Your task to perform on an android device: open the mobile data screen to see how much data has been used Image 0: 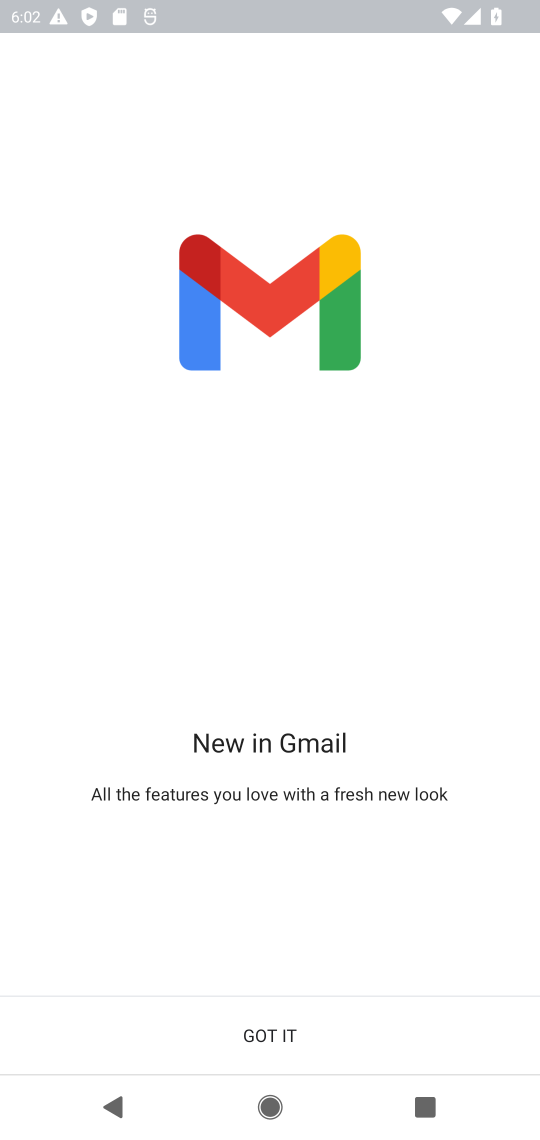
Step 0: press home button
Your task to perform on an android device: open the mobile data screen to see how much data has been used Image 1: 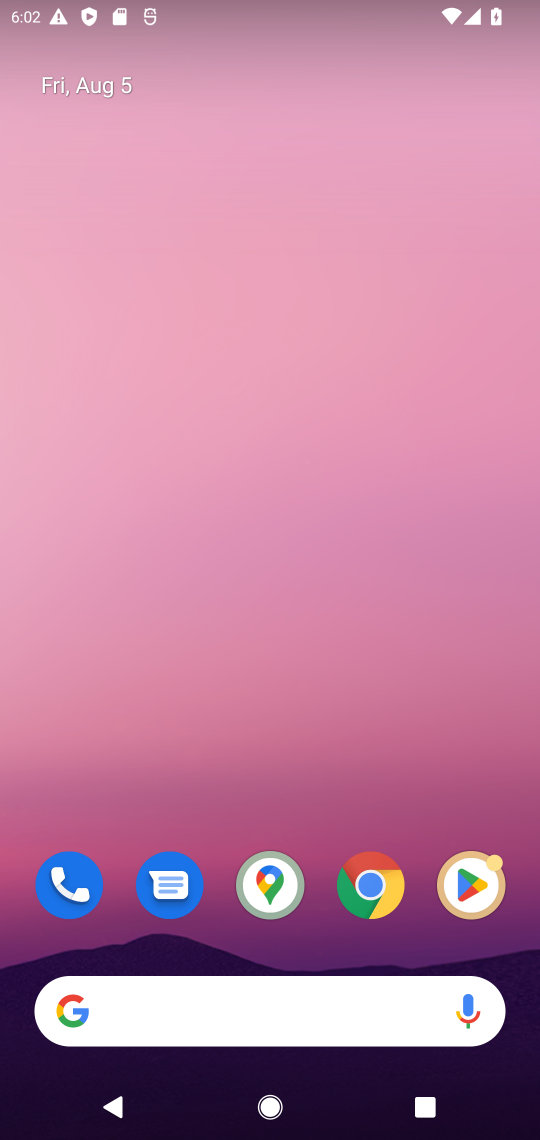
Step 1: drag from (212, 929) to (278, 200)
Your task to perform on an android device: open the mobile data screen to see how much data has been used Image 2: 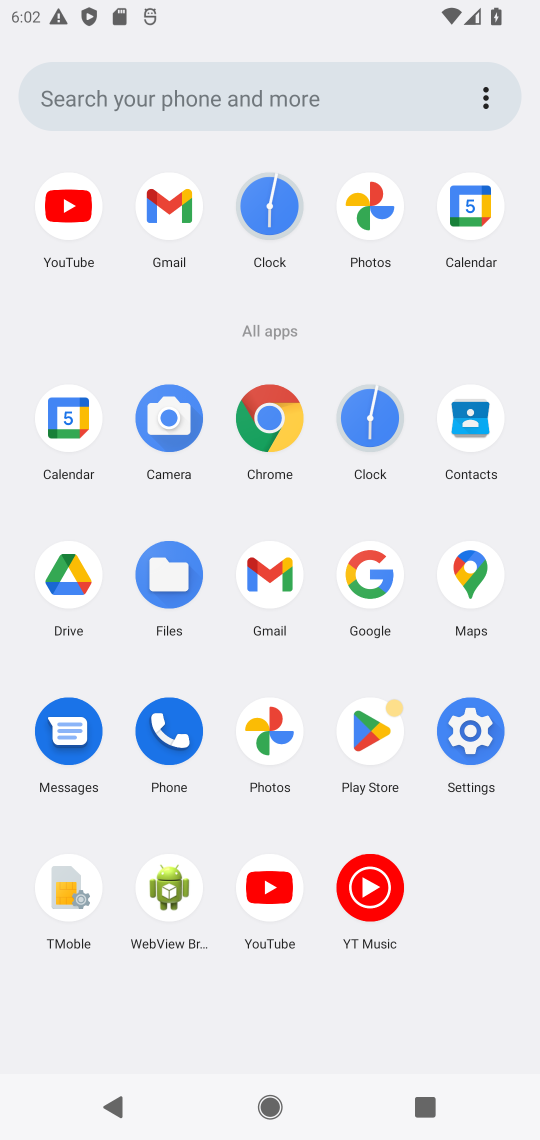
Step 2: click (469, 752)
Your task to perform on an android device: open the mobile data screen to see how much data has been used Image 3: 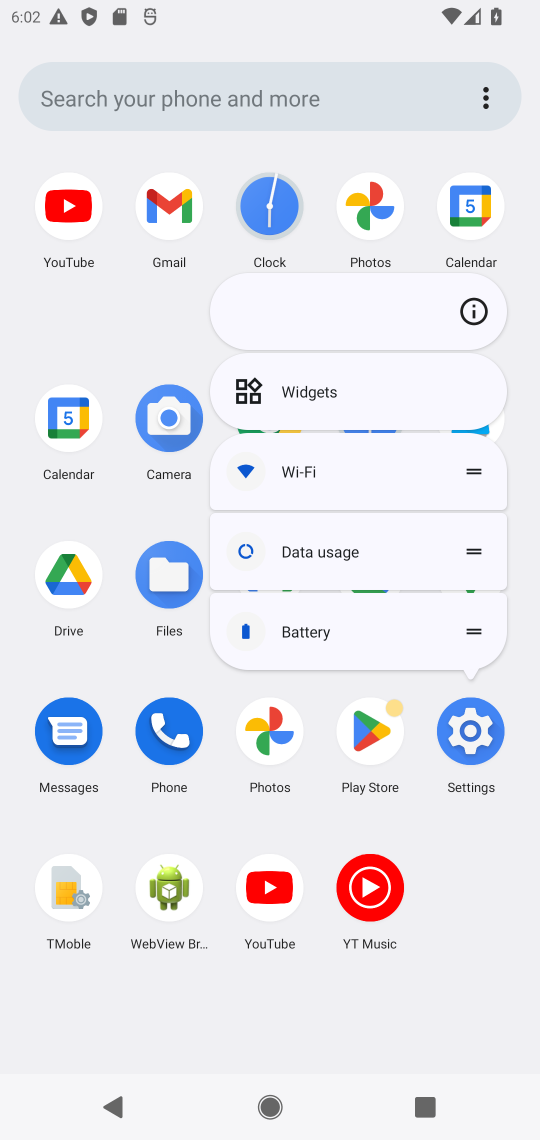
Step 3: click (469, 753)
Your task to perform on an android device: open the mobile data screen to see how much data has been used Image 4: 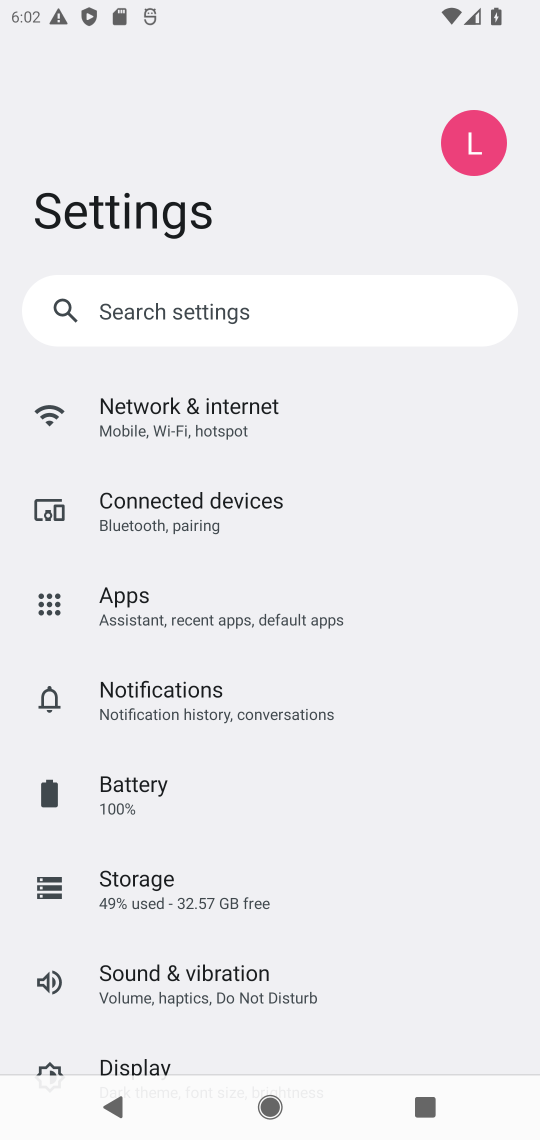
Step 4: click (202, 426)
Your task to perform on an android device: open the mobile data screen to see how much data has been used Image 5: 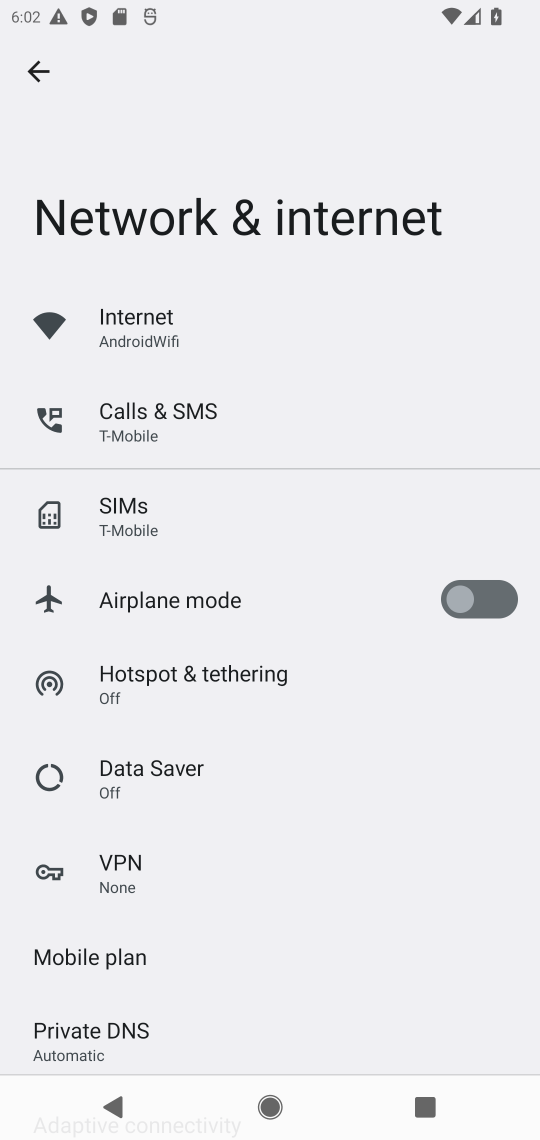
Step 5: click (163, 329)
Your task to perform on an android device: open the mobile data screen to see how much data has been used Image 6: 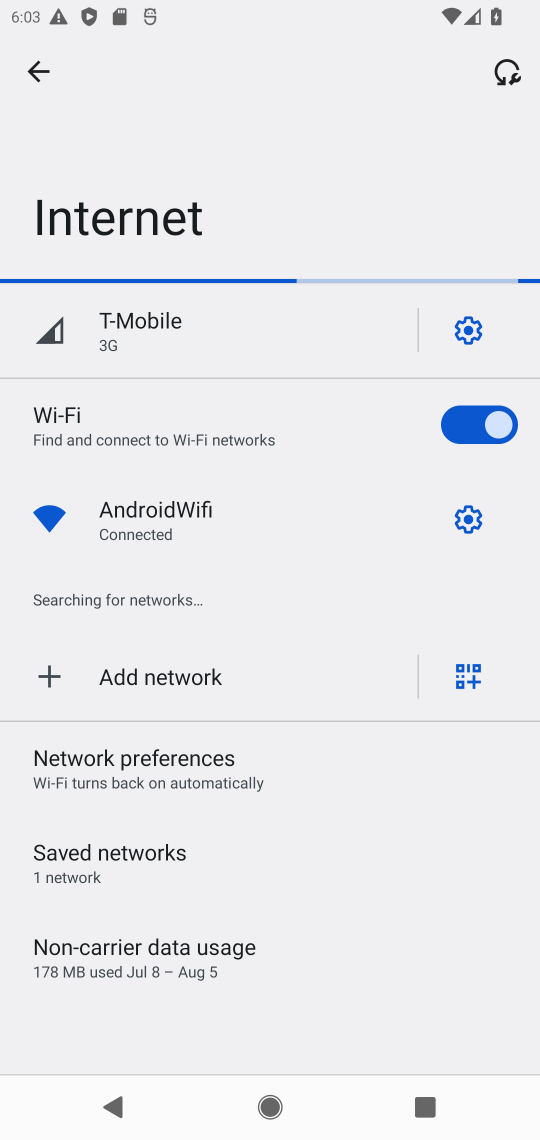
Step 6: click (135, 339)
Your task to perform on an android device: open the mobile data screen to see how much data has been used Image 7: 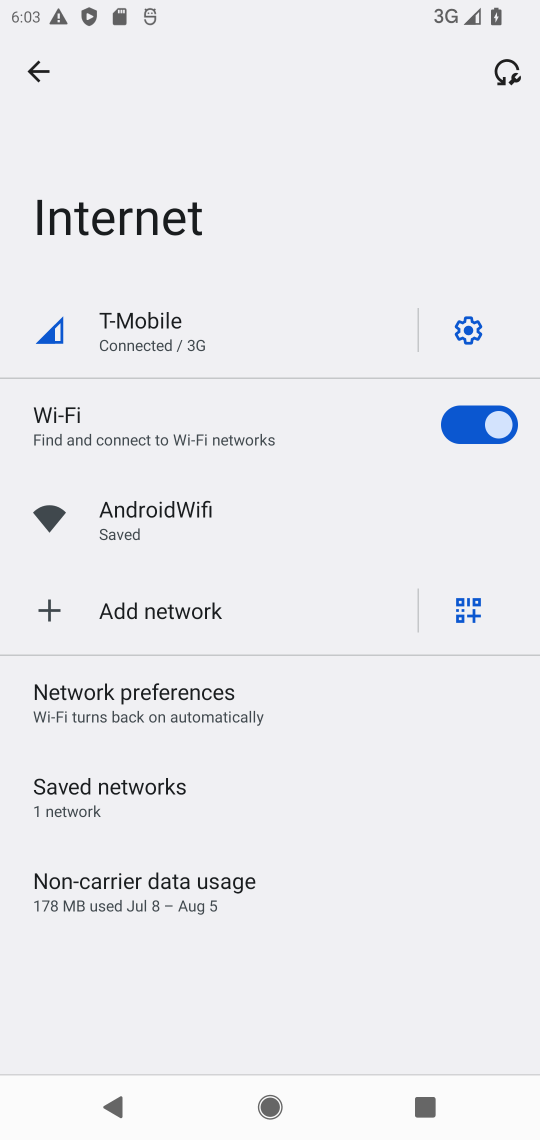
Step 7: click (466, 337)
Your task to perform on an android device: open the mobile data screen to see how much data has been used Image 8: 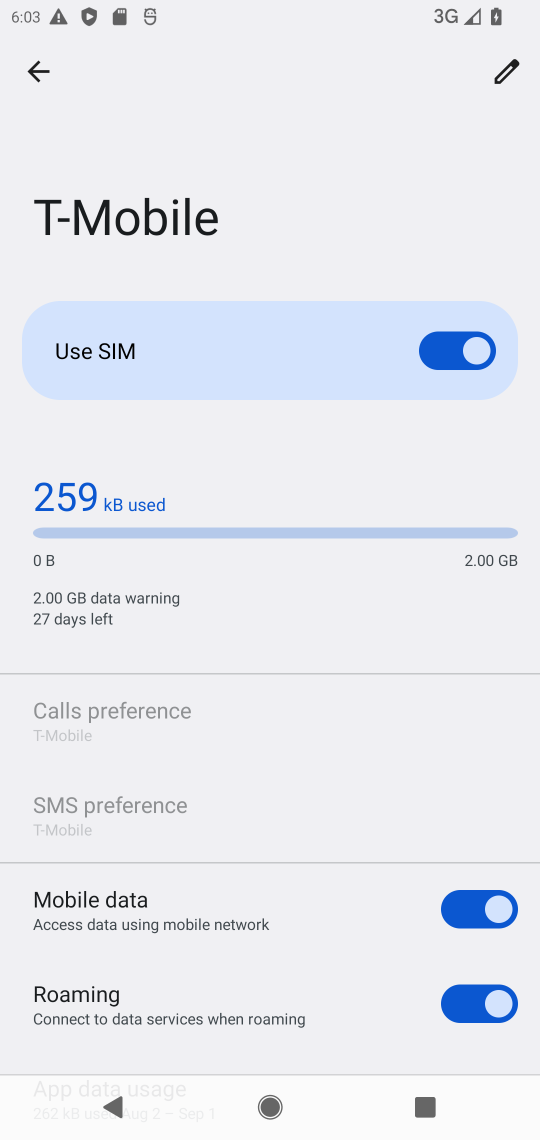
Step 8: drag from (226, 934) to (234, 649)
Your task to perform on an android device: open the mobile data screen to see how much data has been used Image 9: 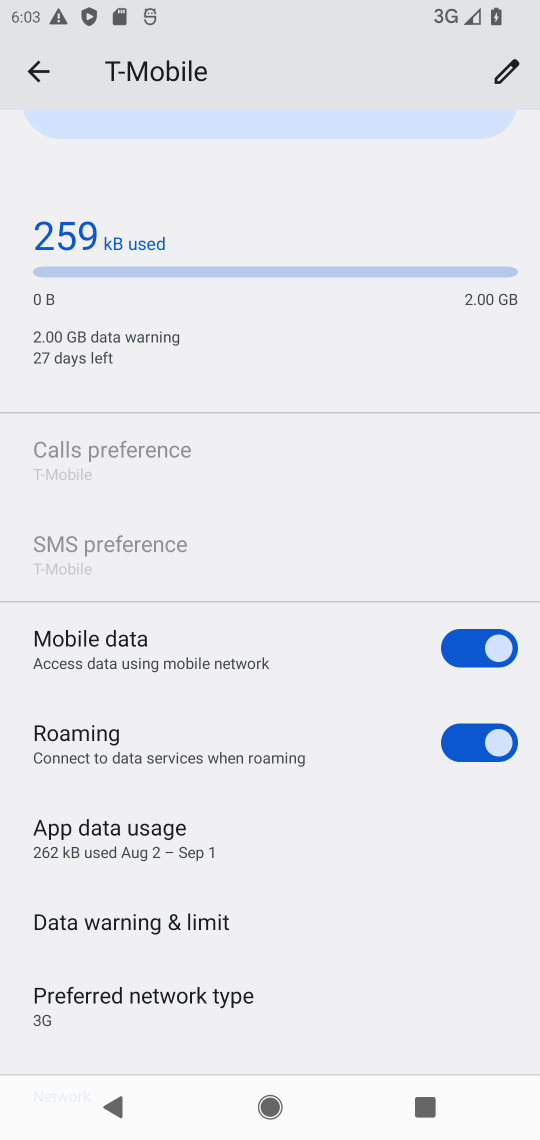
Step 9: click (115, 837)
Your task to perform on an android device: open the mobile data screen to see how much data has been used Image 10: 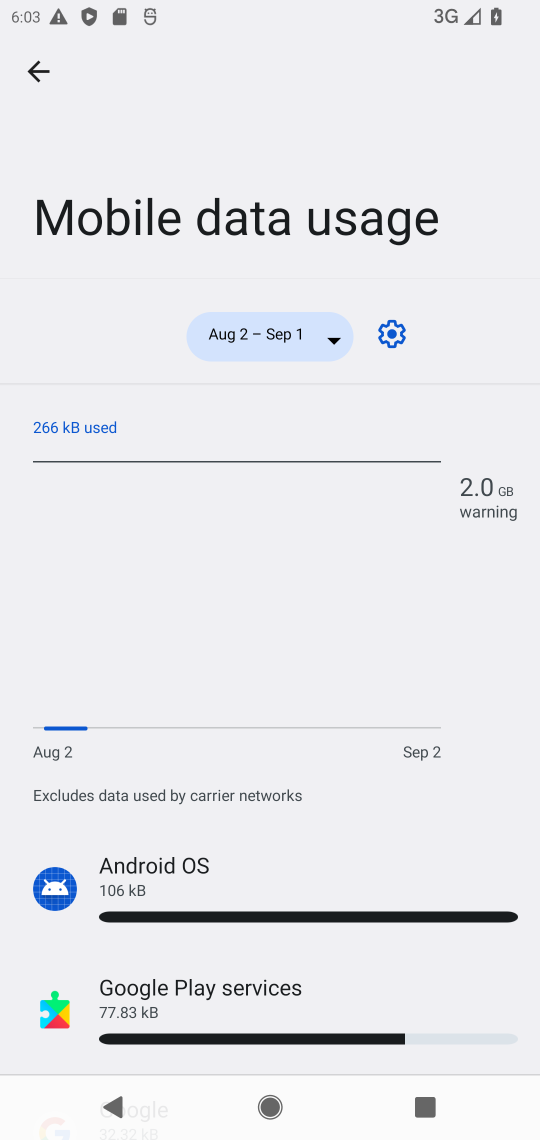
Step 10: task complete